Your task to perform on an android device: change notifications settings Image 0: 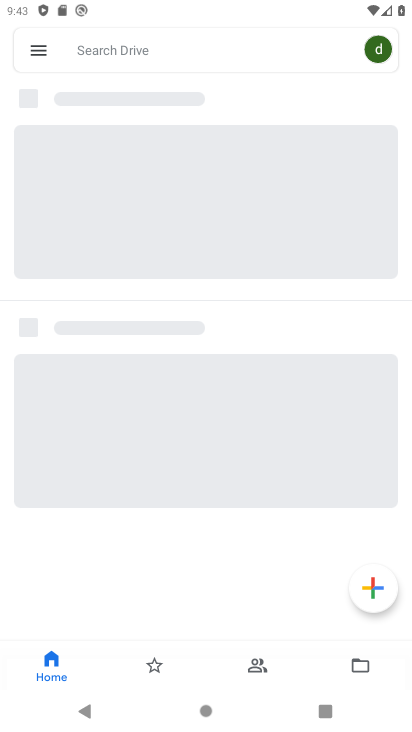
Step 0: press back button
Your task to perform on an android device: change notifications settings Image 1: 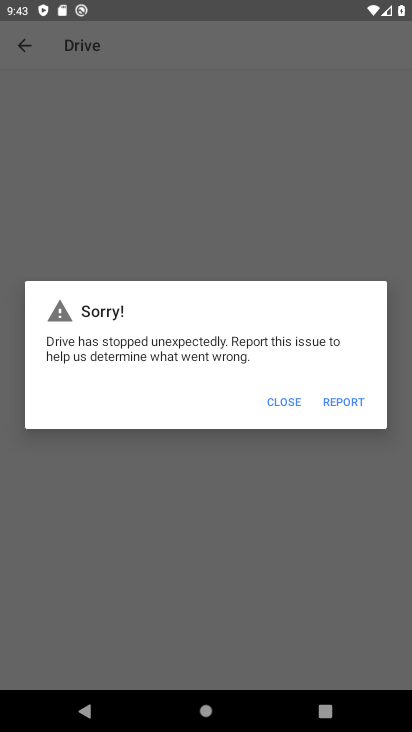
Step 1: click (263, 406)
Your task to perform on an android device: change notifications settings Image 2: 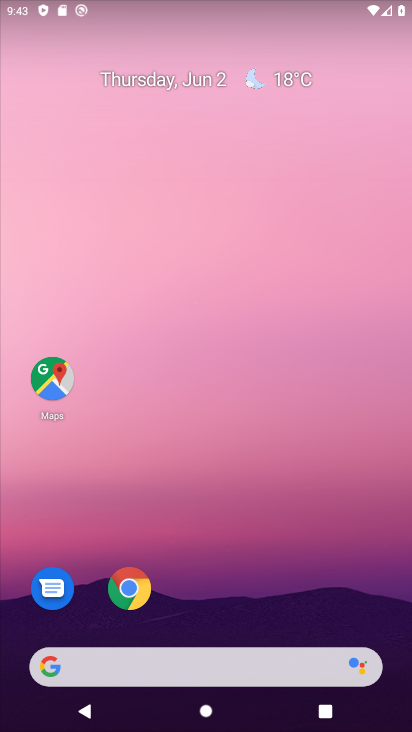
Step 2: drag from (291, 698) to (234, 178)
Your task to perform on an android device: change notifications settings Image 3: 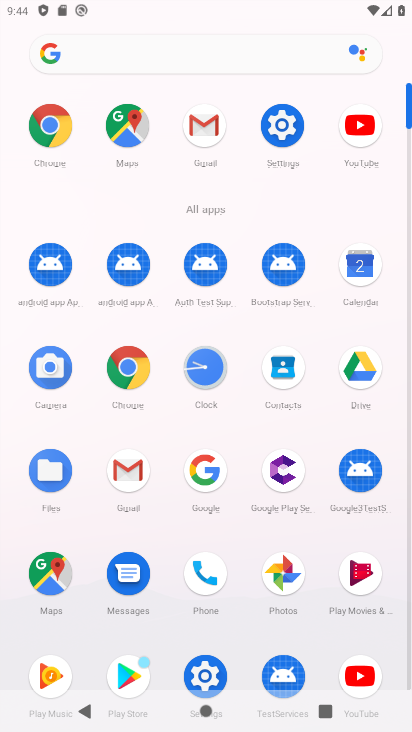
Step 3: click (286, 125)
Your task to perform on an android device: change notifications settings Image 4: 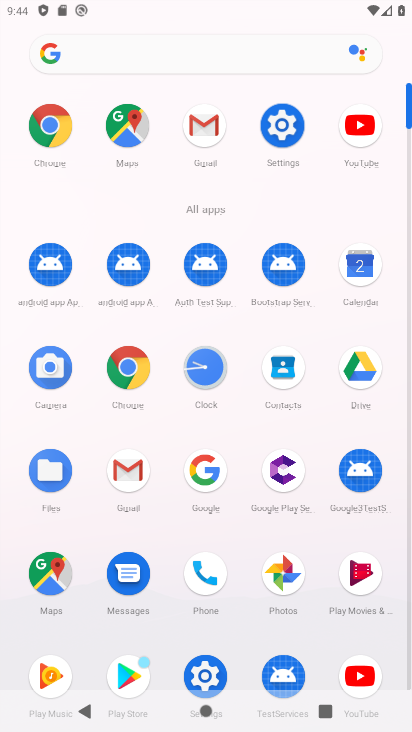
Step 4: click (285, 124)
Your task to perform on an android device: change notifications settings Image 5: 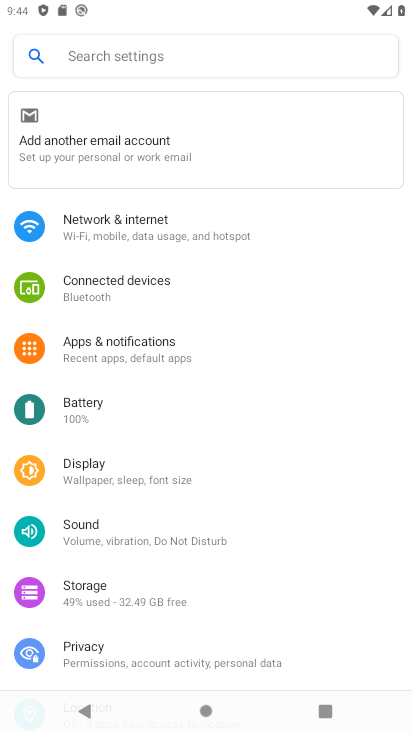
Step 5: click (128, 330)
Your task to perform on an android device: change notifications settings Image 6: 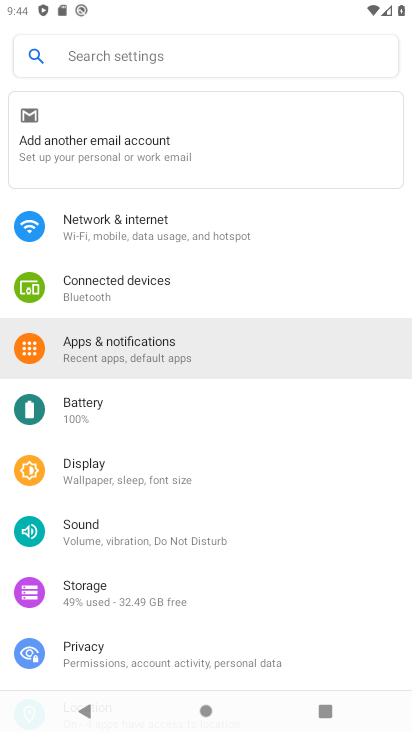
Step 6: click (123, 344)
Your task to perform on an android device: change notifications settings Image 7: 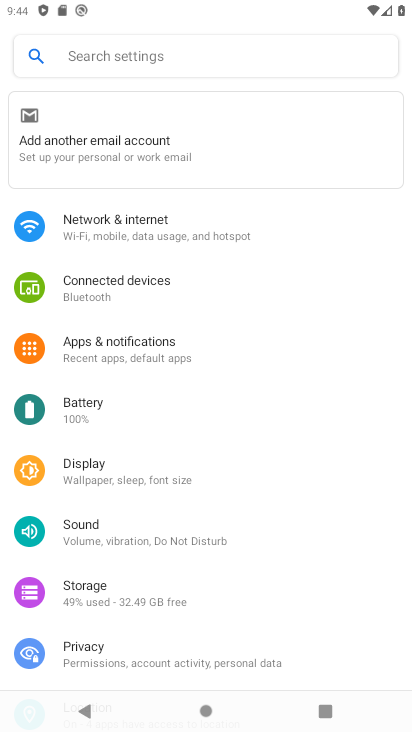
Step 7: click (122, 345)
Your task to perform on an android device: change notifications settings Image 8: 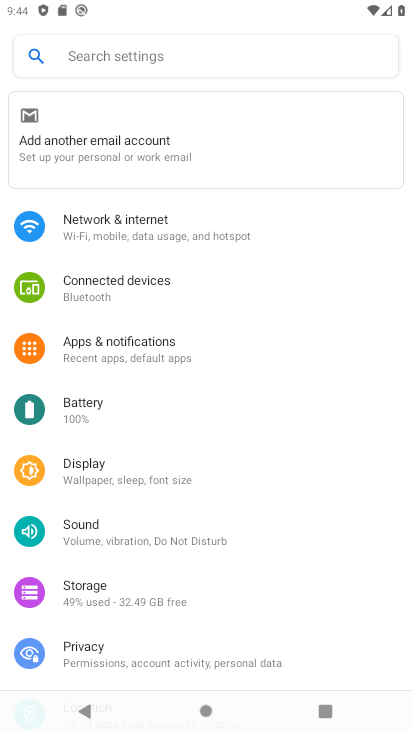
Step 8: click (123, 345)
Your task to perform on an android device: change notifications settings Image 9: 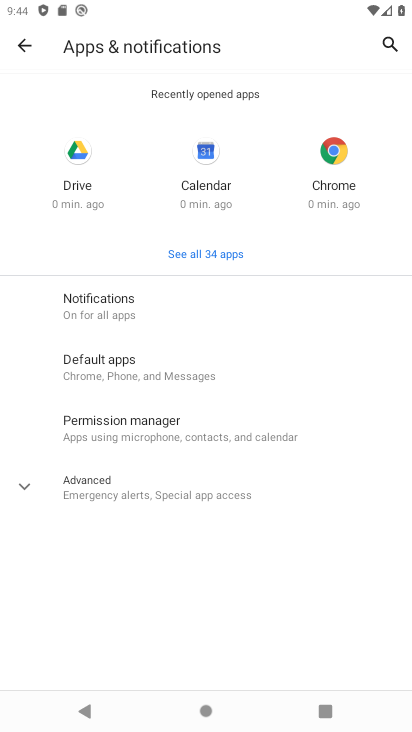
Step 9: click (77, 295)
Your task to perform on an android device: change notifications settings Image 10: 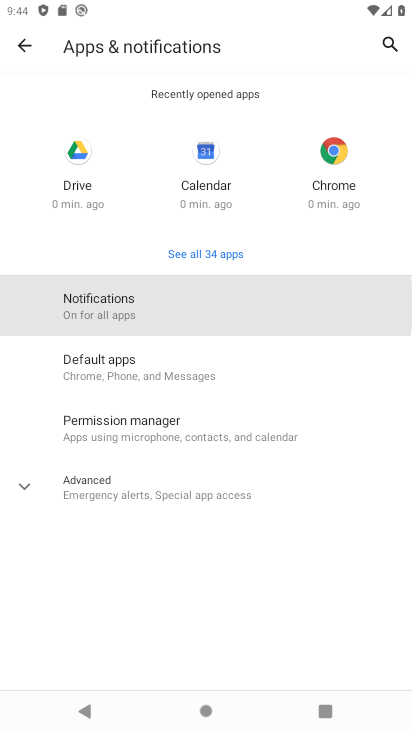
Step 10: click (84, 309)
Your task to perform on an android device: change notifications settings Image 11: 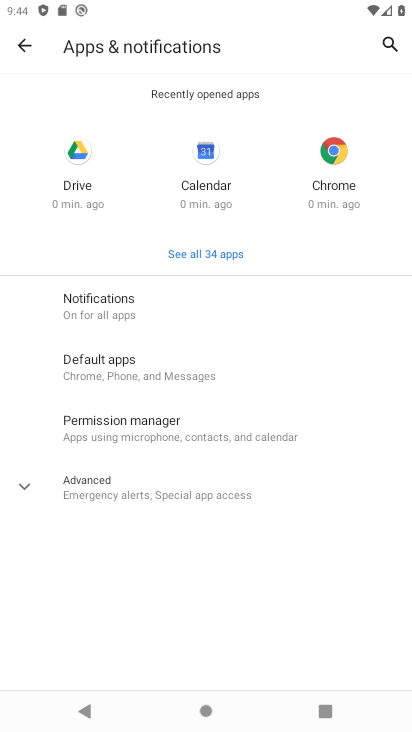
Step 11: click (89, 310)
Your task to perform on an android device: change notifications settings Image 12: 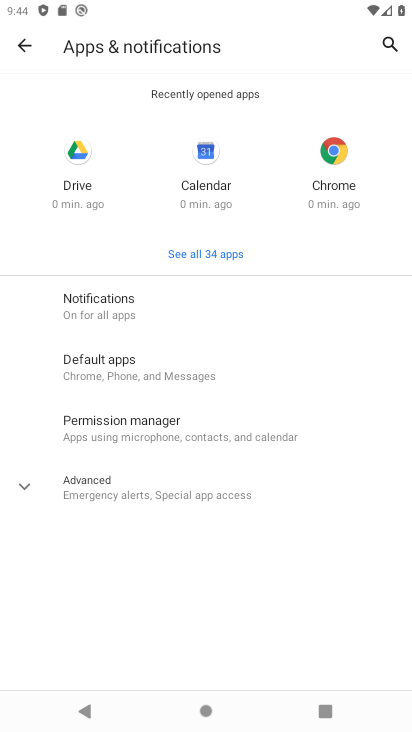
Step 12: click (90, 310)
Your task to perform on an android device: change notifications settings Image 13: 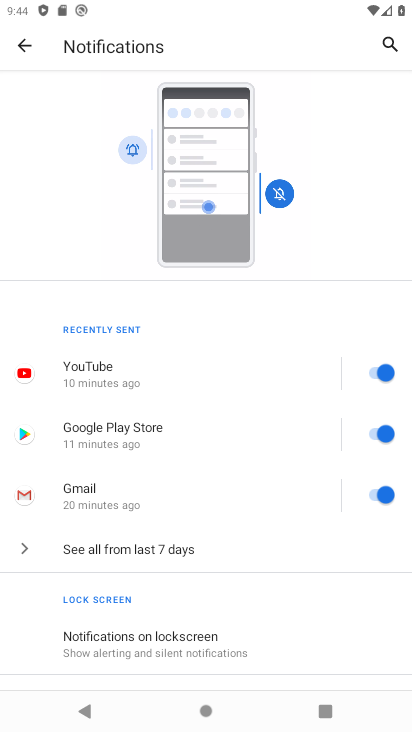
Step 13: drag from (192, 490) to (201, 164)
Your task to perform on an android device: change notifications settings Image 14: 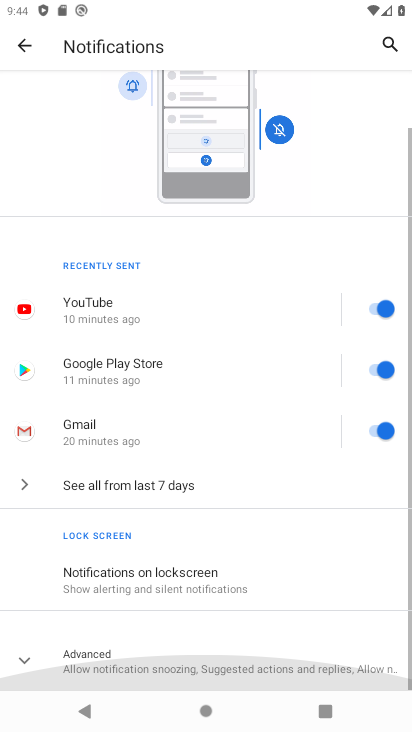
Step 14: drag from (250, 417) to (246, 70)
Your task to perform on an android device: change notifications settings Image 15: 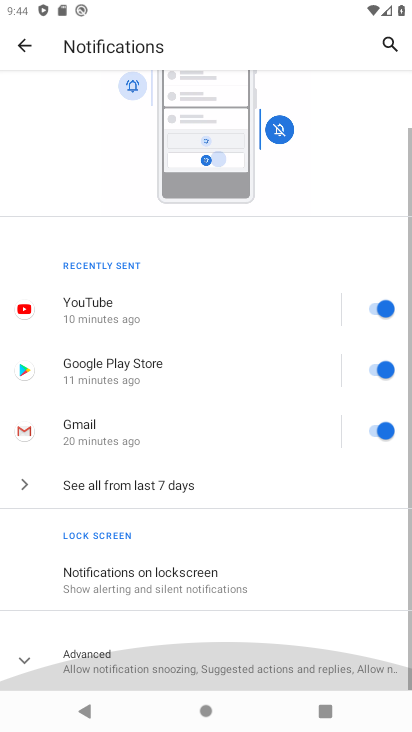
Step 15: drag from (286, 379) to (300, 104)
Your task to perform on an android device: change notifications settings Image 16: 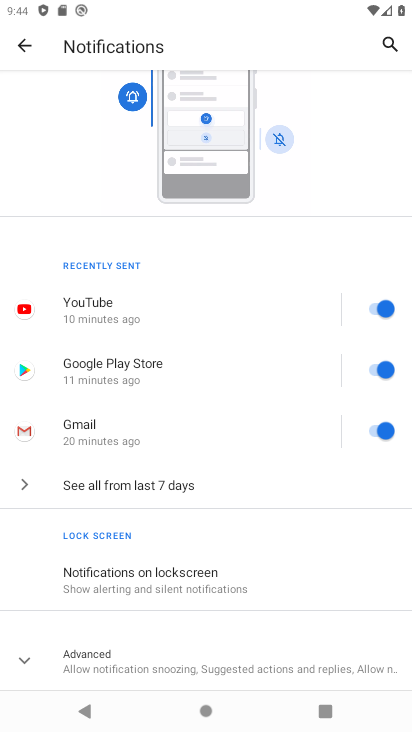
Step 16: click (119, 655)
Your task to perform on an android device: change notifications settings Image 17: 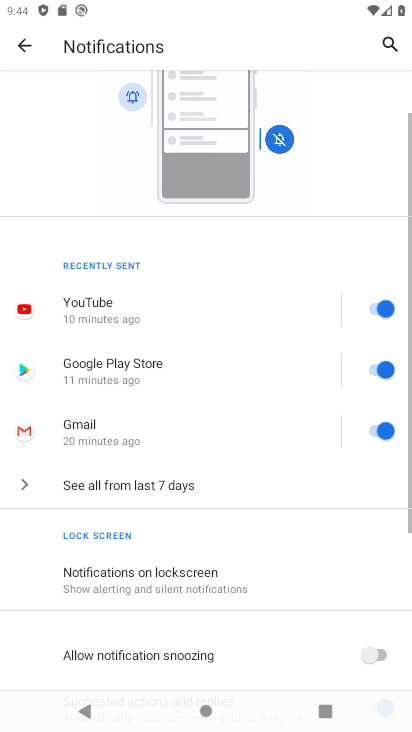
Step 17: drag from (226, 575) to (202, 226)
Your task to perform on an android device: change notifications settings Image 18: 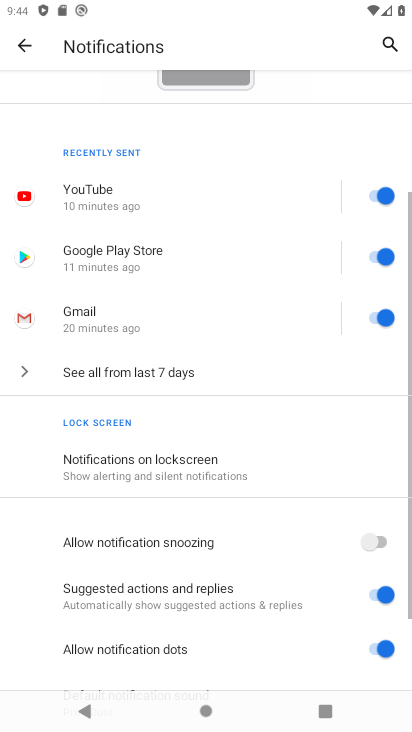
Step 18: drag from (192, 516) to (177, 150)
Your task to perform on an android device: change notifications settings Image 19: 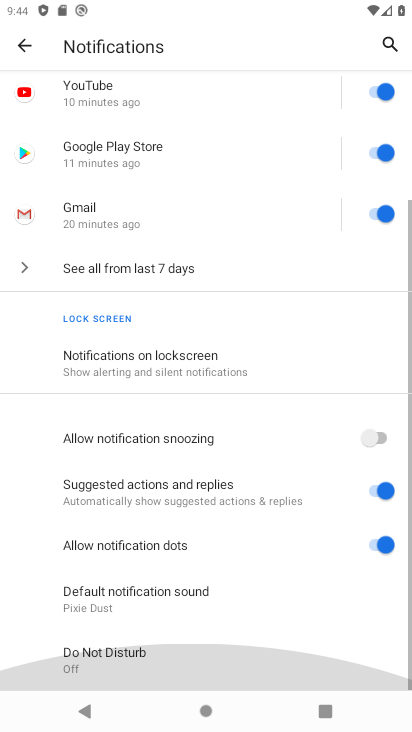
Step 19: drag from (213, 478) to (208, 158)
Your task to perform on an android device: change notifications settings Image 20: 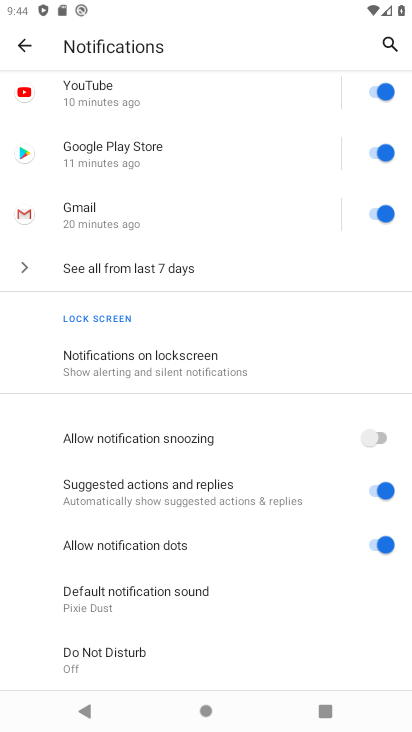
Step 20: click (377, 213)
Your task to perform on an android device: change notifications settings Image 21: 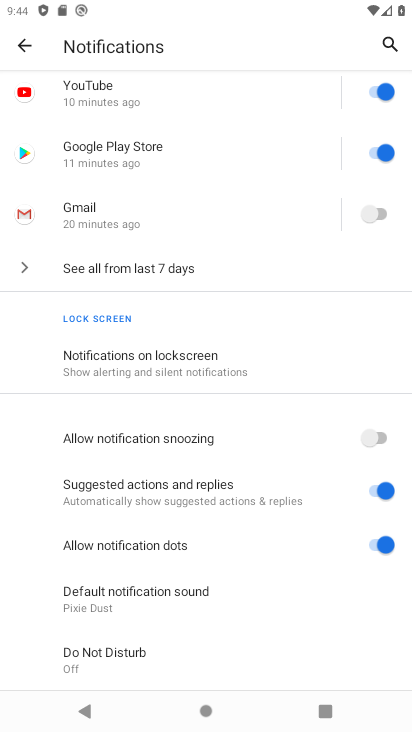
Step 21: click (374, 157)
Your task to perform on an android device: change notifications settings Image 22: 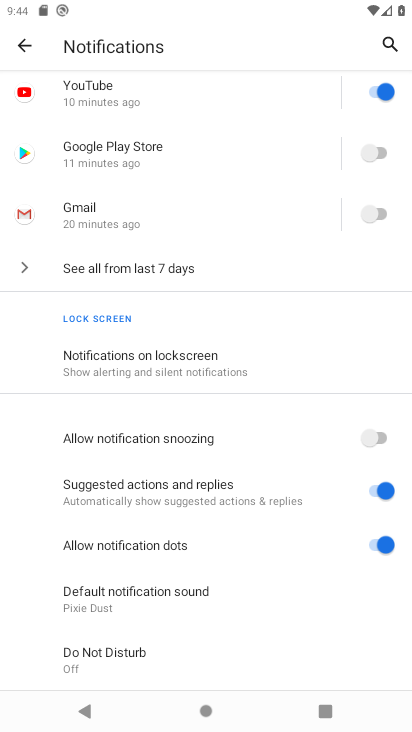
Step 22: click (381, 84)
Your task to perform on an android device: change notifications settings Image 23: 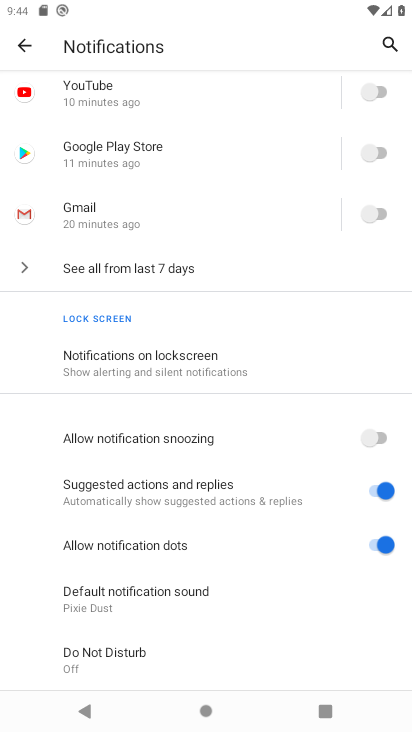
Step 23: task complete